Your task to perform on an android device: search for starred emails in the gmail app Image 0: 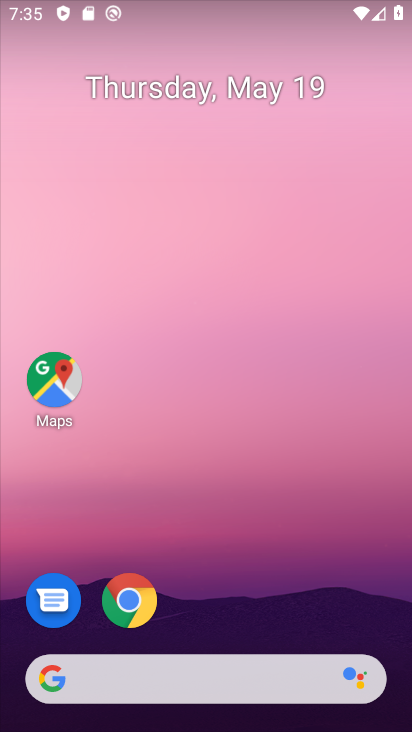
Step 0: press home button
Your task to perform on an android device: search for starred emails in the gmail app Image 1: 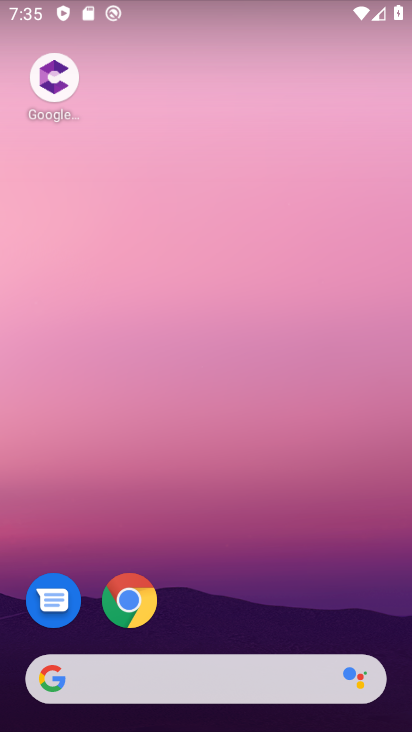
Step 1: drag from (335, 617) to (293, 26)
Your task to perform on an android device: search for starred emails in the gmail app Image 2: 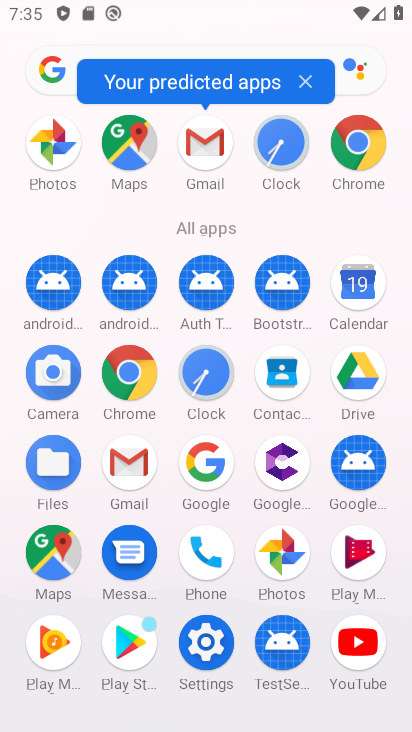
Step 2: click (204, 138)
Your task to perform on an android device: search for starred emails in the gmail app Image 3: 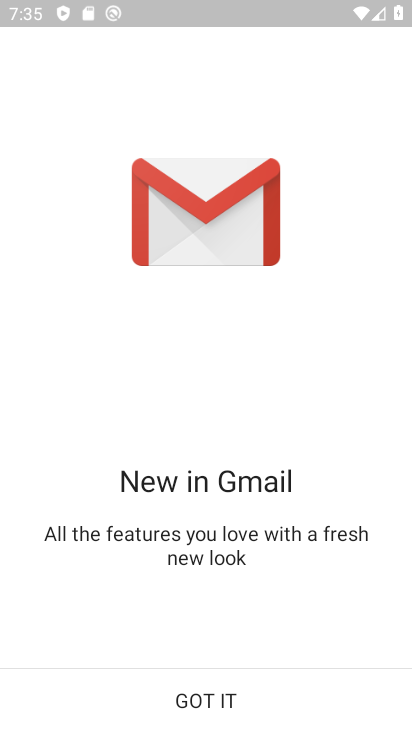
Step 3: click (213, 710)
Your task to perform on an android device: search for starred emails in the gmail app Image 4: 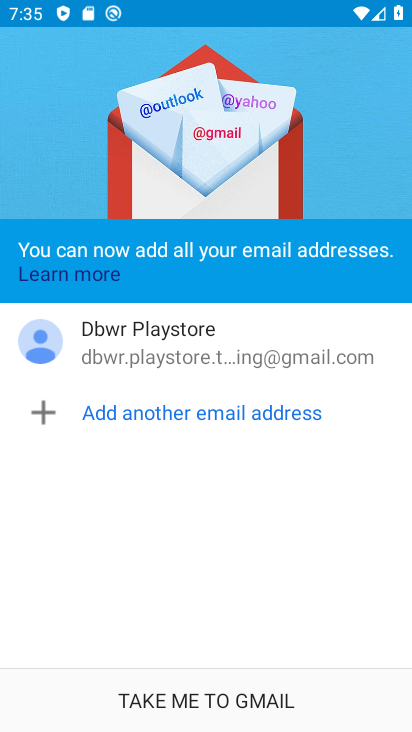
Step 4: click (213, 710)
Your task to perform on an android device: search for starred emails in the gmail app Image 5: 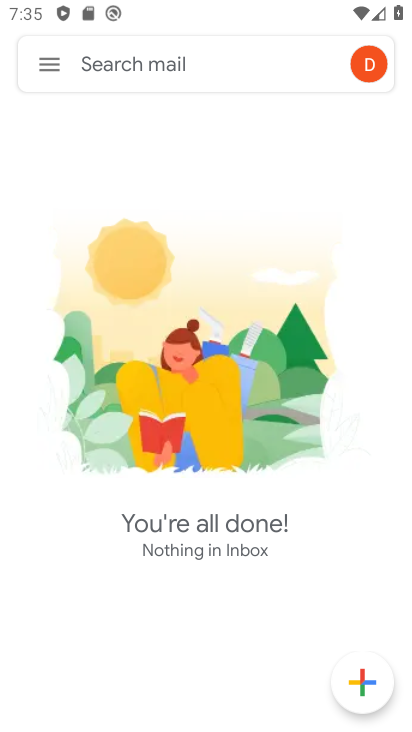
Step 5: click (53, 66)
Your task to perform on an android device: search for starred emails in the gmail app Image 6: 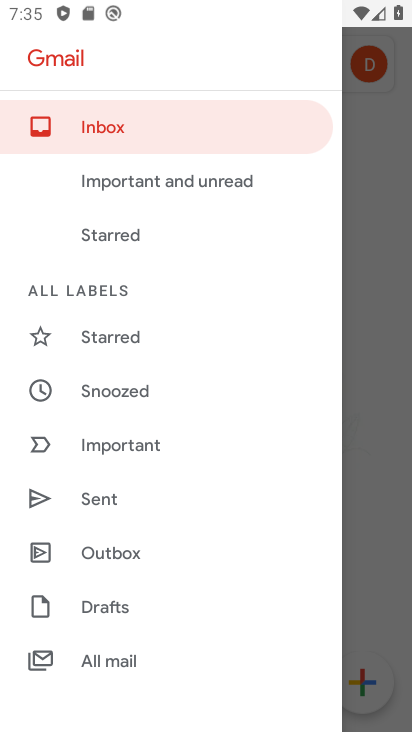
Step 6: click (93, 330)
Your task to perform on an android device: search for starred emails in the gmail app Image 7: 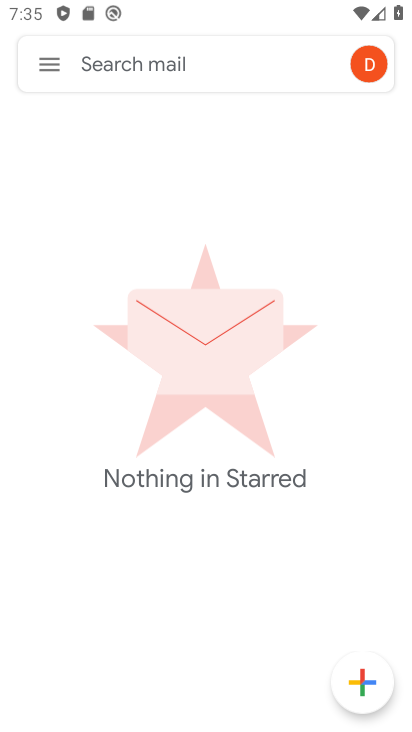
Step 7: task complete